Your task to perform on an android device: Search for pizza restaurants on Maps Image 0: 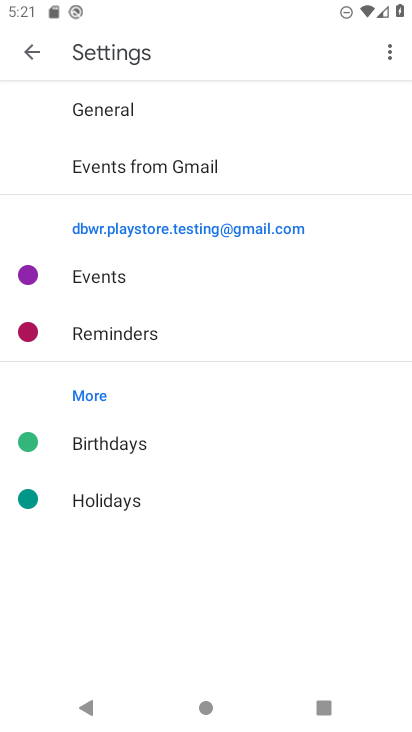
Step 0: press back button
Your task to perform on an android device: Search for pizza restaurants on Maps Image 1: 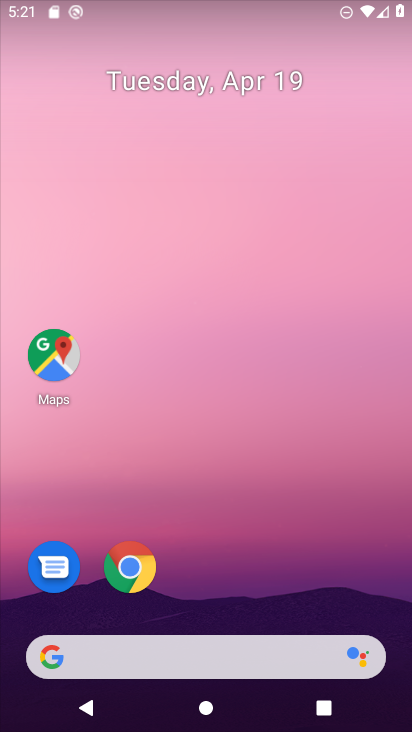
Step 1: drag from (279, 527) to (210, 6)
Your task to perform on an android device: Search for pizza restaurants on Maps Image 2: 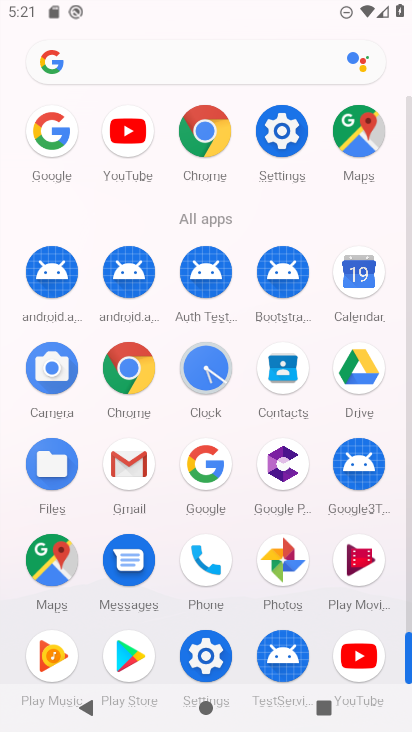
Step 2: drag from (5, 523) to (0, 343)
Your task to perform on an android device: Search for pizza restaurants on Maps Image 3: 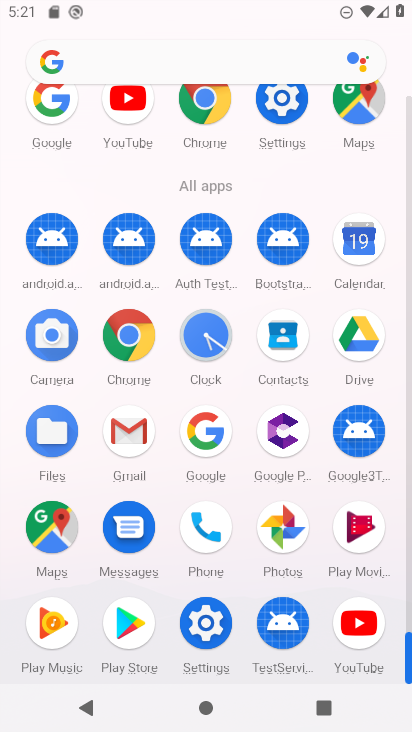
Step 3: click (52, 525)
Your task to perform on an android device: Search for pizza restaurants on Maps Image 4: 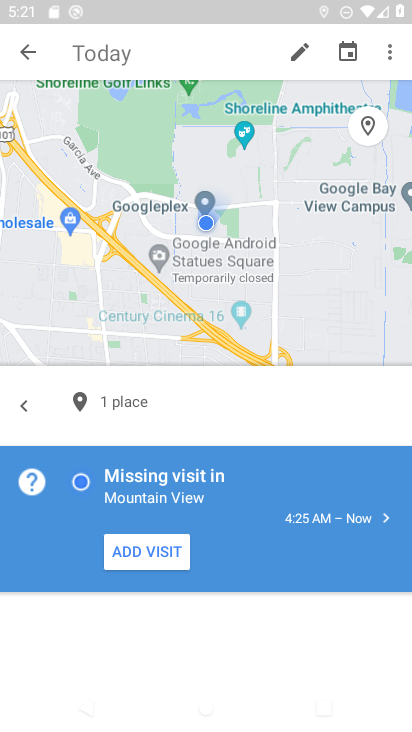
Step 4: click (32, 47)
Your task to perform on an android device: Search for pizza restaurants on Maps Image 5: 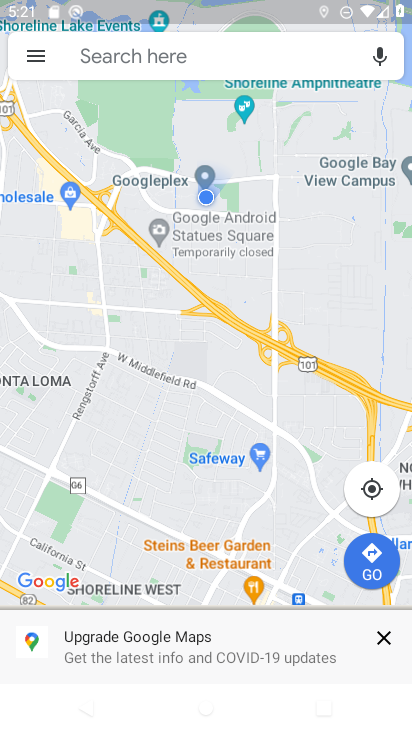
Step 5: click (269, 48)
Your task to perform on an android device: Search for pizza restaurants on Maps Image 6: 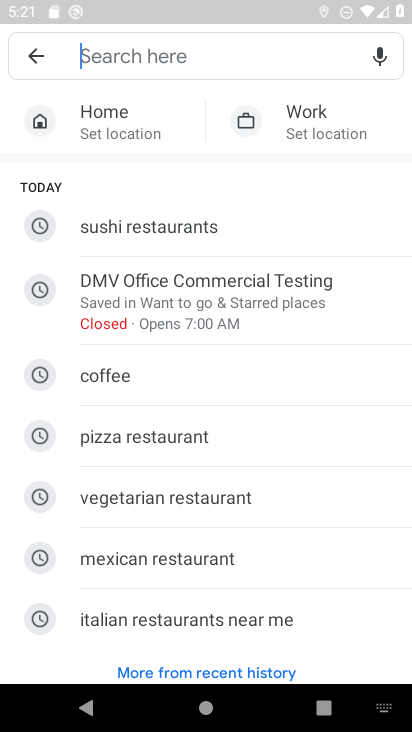
Step 6: click (155, 444)
Your task to perform on an android device: Search for pizza restaurants on Maps Image 7: 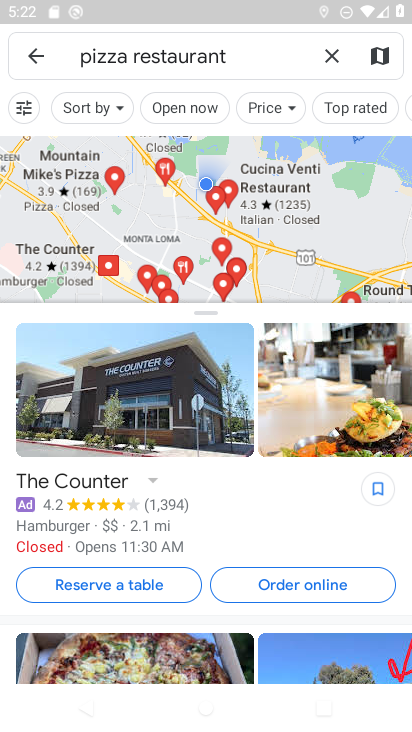
Step 7: task complete